Your task to perform on an android device: Open CNN.com Image 0: 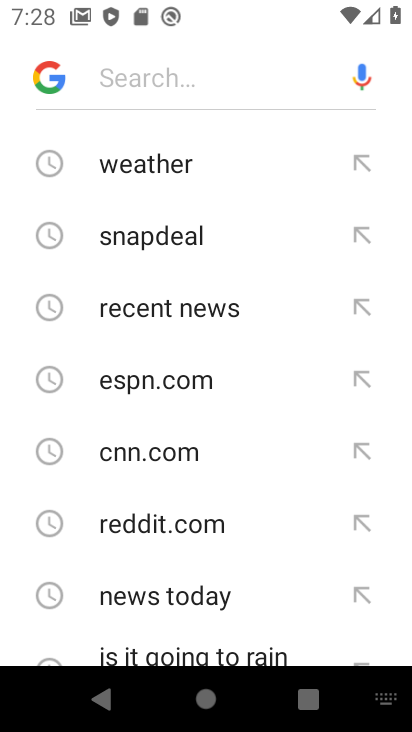
Step 0: press home button
Your task to perform on an android device: Open CNN.com Image 1: 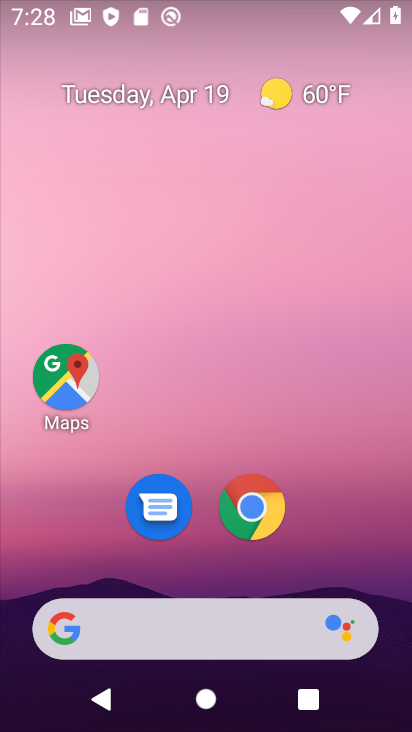
Step 1: click (253, 505)
Your task to perform on an android device: Open CNN.com Image 2: 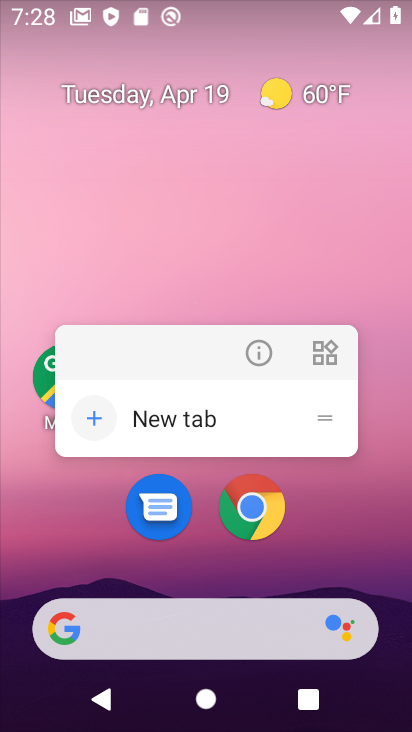
Step 2: click (256, 502)
Your task to perform on an android device: Open CNN.com Image 3: 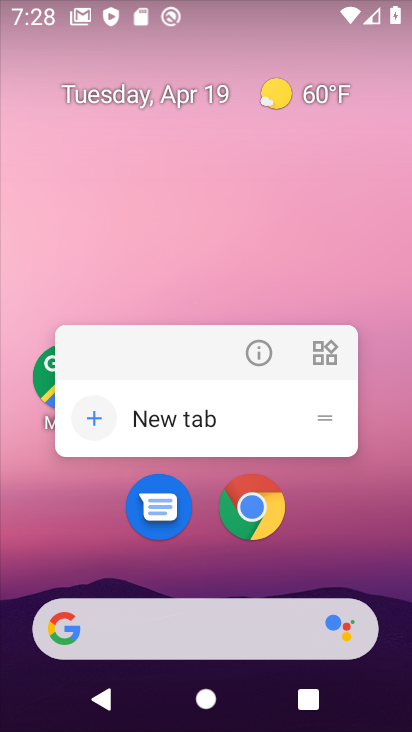
Step 3: click (256, 502)
Your task to perform on an android device: Open CNN.com Image 4: 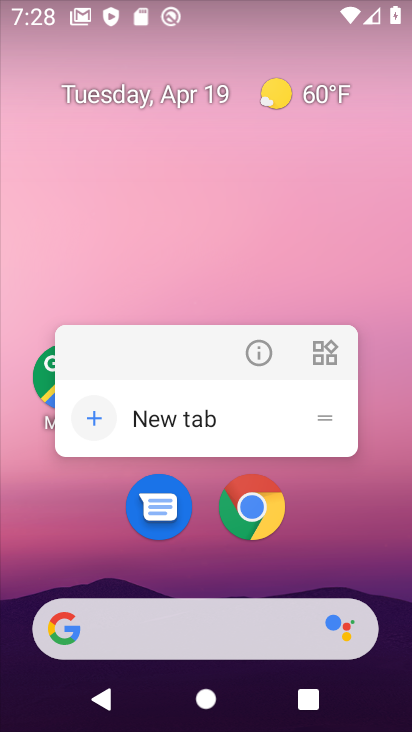
Step 4: click (256, 502)
Your task to perform on an android device: Open CNN.com Image 5: 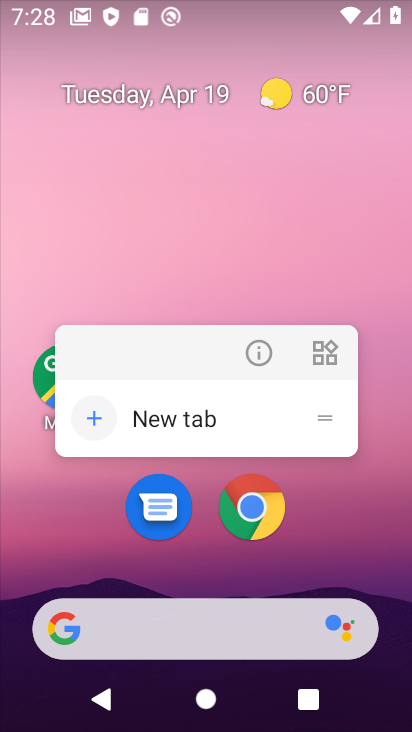
Step 5: drag from (320, 527) to (316, 103)
Your task to perform on an android device: Open CNN.com Image 6: 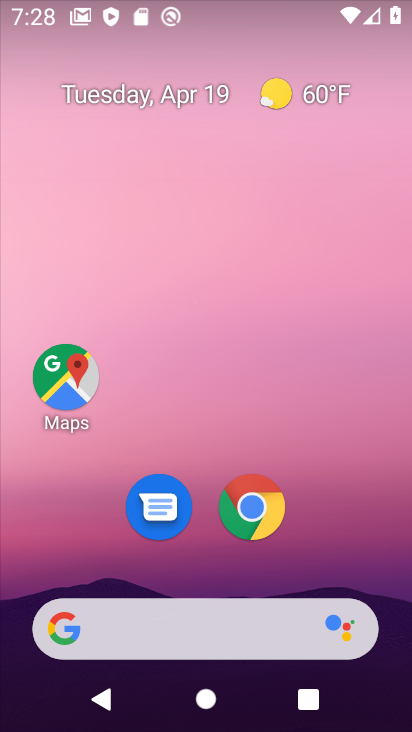
Step 6: drag from (345, 476) to (306, 35)
Your task to perform on an android device: Open CNN.com Image 7: 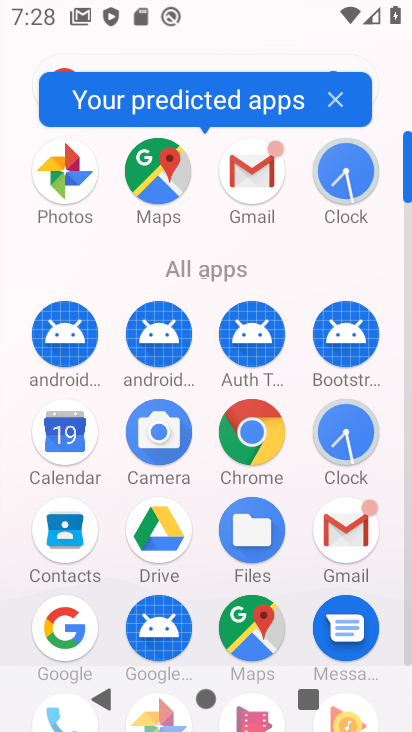
Step 7: click (259, 427)
Your task to perform on an android device: Open CNN.com Image 8: 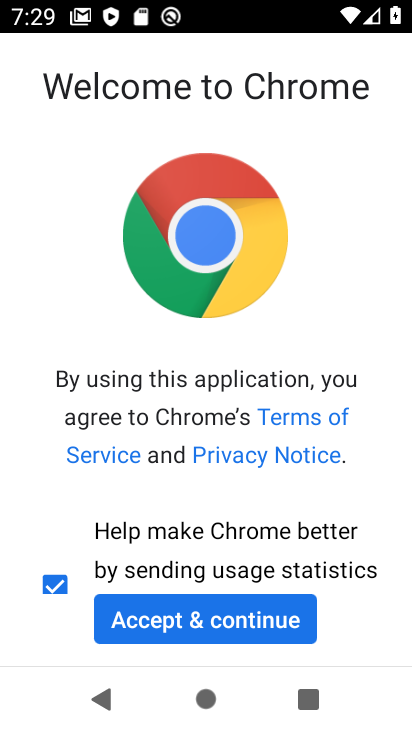
Step 8: click (293, 623)
Your task to perform on an android device: Open CNN.com Image 9: 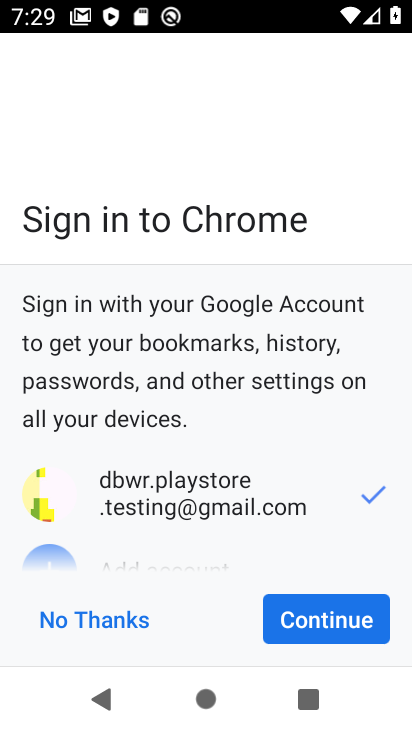
Step 9: click (298, 618)
Your task to perform on an android device: Open CNN.com Image 10: 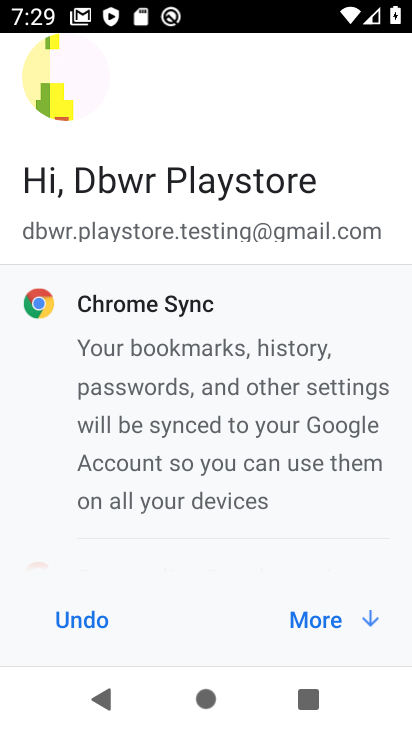
Step 10: click (298, 617)
Your task to perform on an android device: Open CNN.com Image 11: 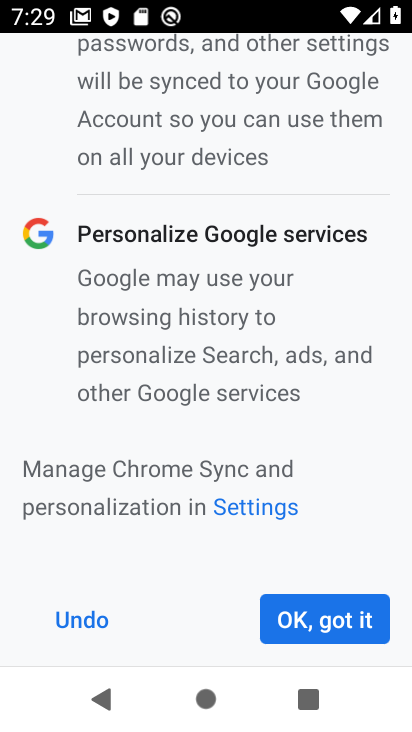
Step 11: click (298, 617)
Your task to perform on an android device: Open CNN.com Image 12: 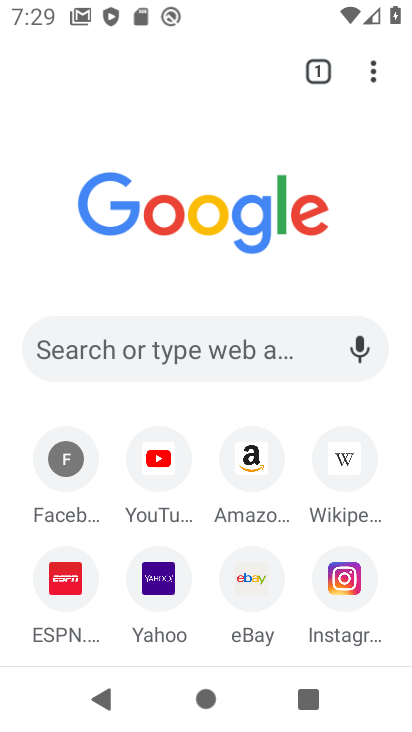
Step 12: click (229, 325)
Your task to perform on an android device: Open CNN.com Image 13: 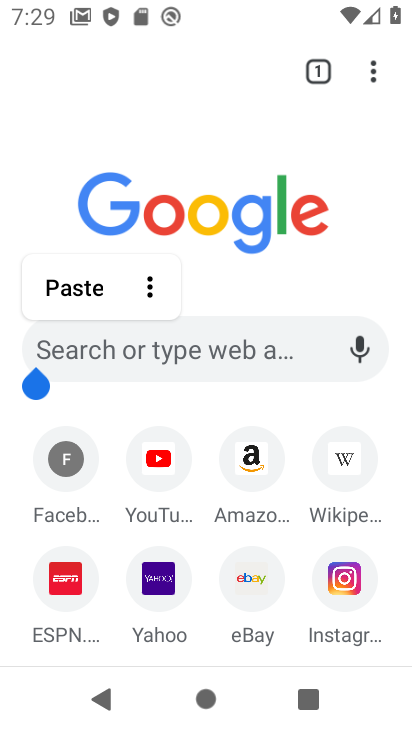
Step 13: click (229, 328)
Your task to perform on an android device: Open CNN.com Image 14: 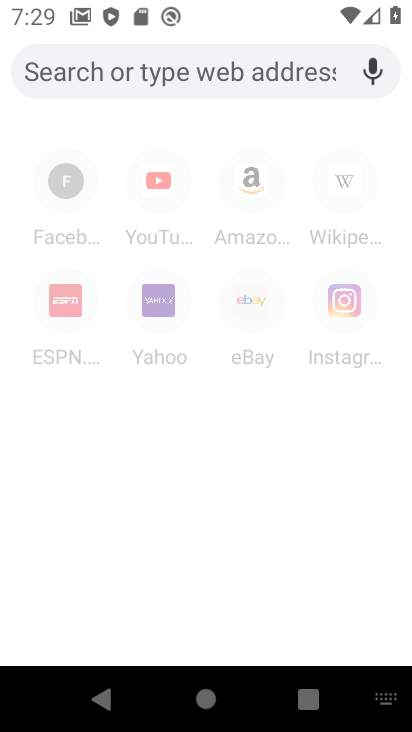
Step 14: type "cnn.com"
Your task to perform on an android device: Open CNN.com Image 15: 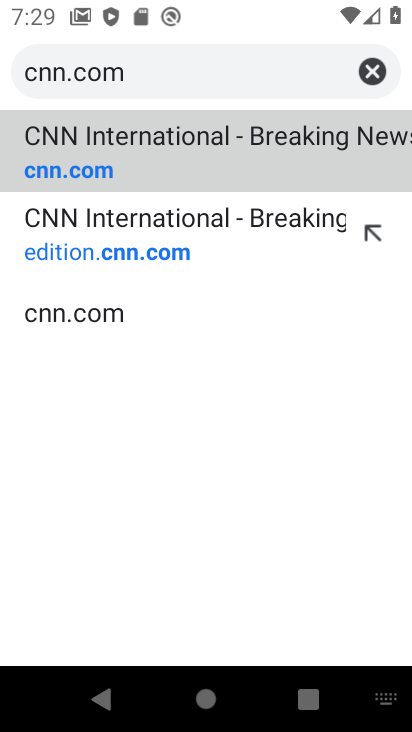
Step 15: click (99, 166)
Your task to perform on an android device: Open CNN.com Image 16: 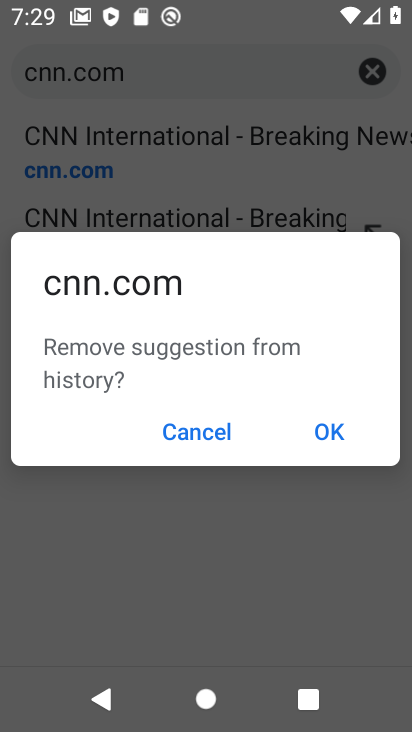
Step 16: click (338, 425)
Your task to perform on an android device: Open CNN.com Image 17: 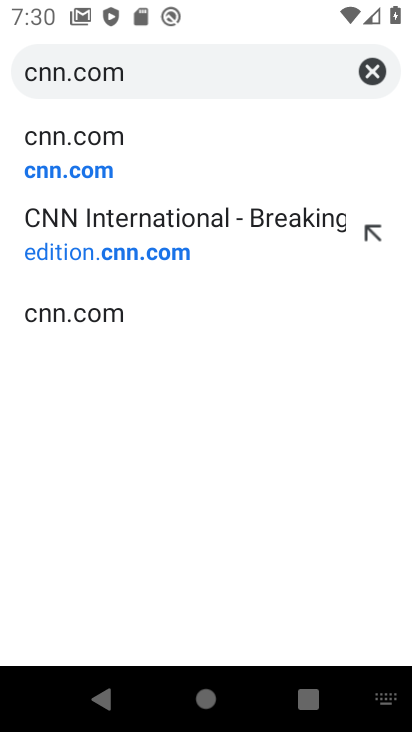
Step 17: click (94, 169)
Your task to perform on an android device: Open CNN.com Image 18: 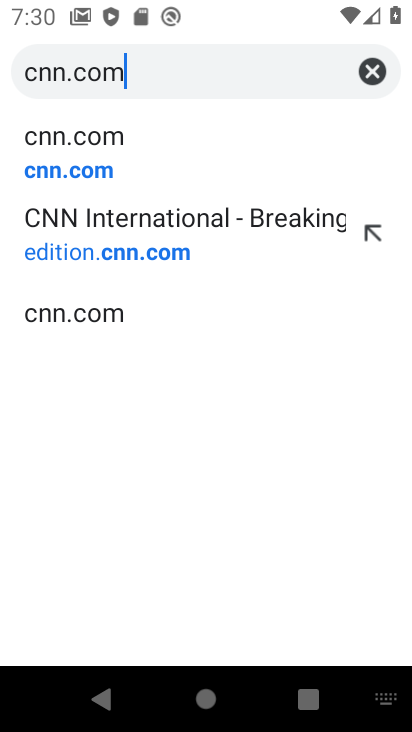
Step 18: click (94, 169)
Your task to perform on an android device: Open CNN.com Image 19: 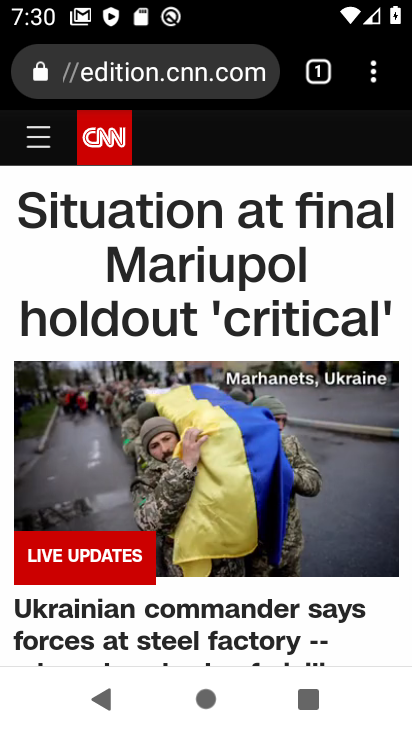
Step 19: task complete